Your task to perform on an android device: Do I have any events this weekend? Image 0: 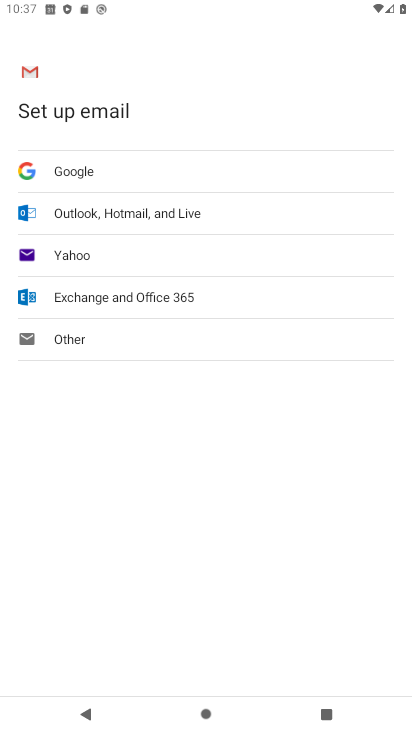
Step 0: press back button
Your task to perform on an android device: Do I have any events this weekend? Image 1: 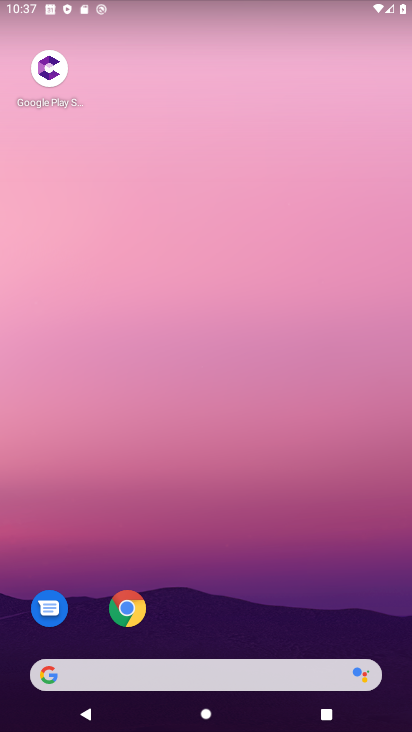
Step 1: drag from (158, 655) to (292, 75)
Your task to perform on an android device: Do I have any events this weekend? Image 2: 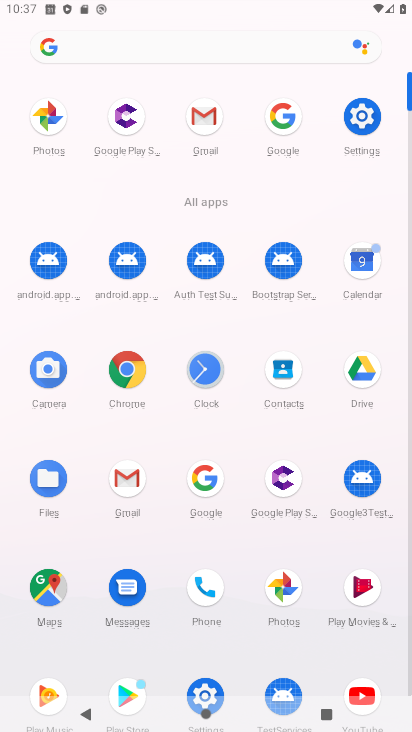
Step 2: click (380, 261)
Your task to perform on an android device: Do I have any events this weekend? Image 3: 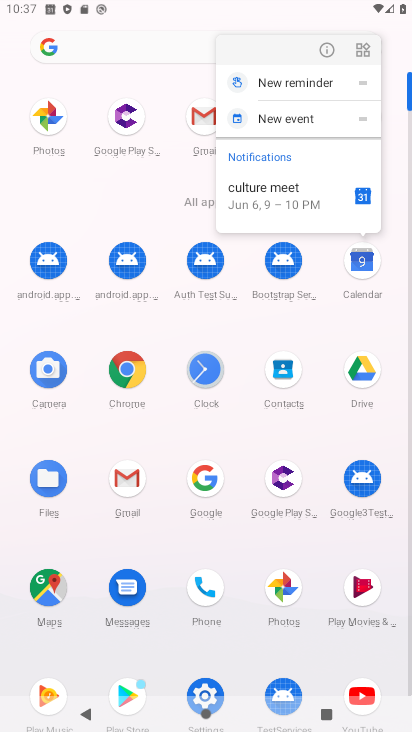
Step 3: click (368, 260)
Your task to perform on an android device: Do I have any events this weekend? Image 4: 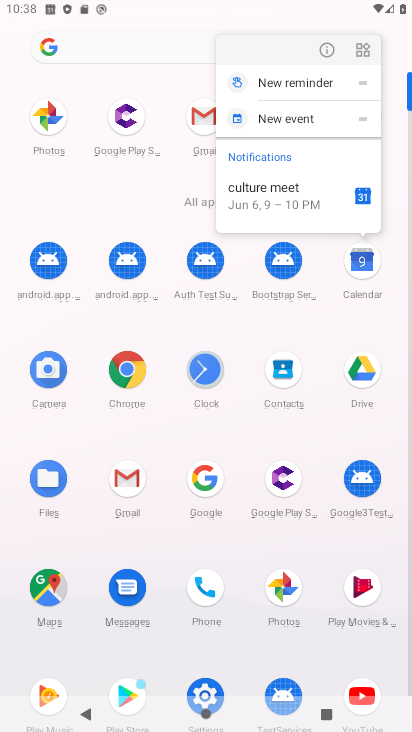
Step 4: click (361, 265)
Your task to perform on an android device: Do I have any events this weekend? Image 5: 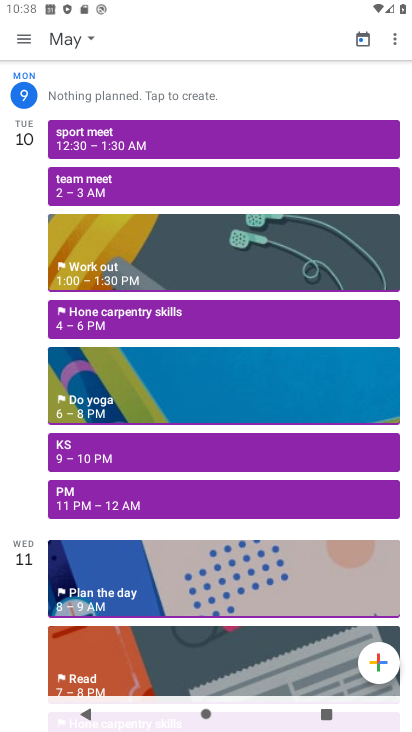
Step 5: click (25, 45)
Your task to perform on an android device: Do I have any events this weekend? Image 6: 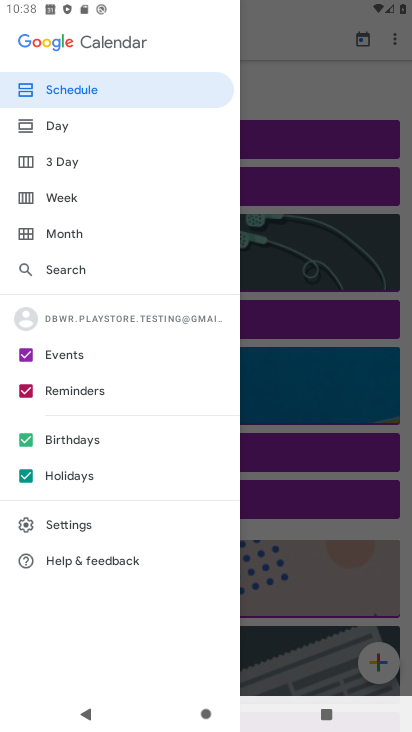
Step 6: click (99, 212)
Your task to perform on an android device: Do I have any events this weekend? Image 7: 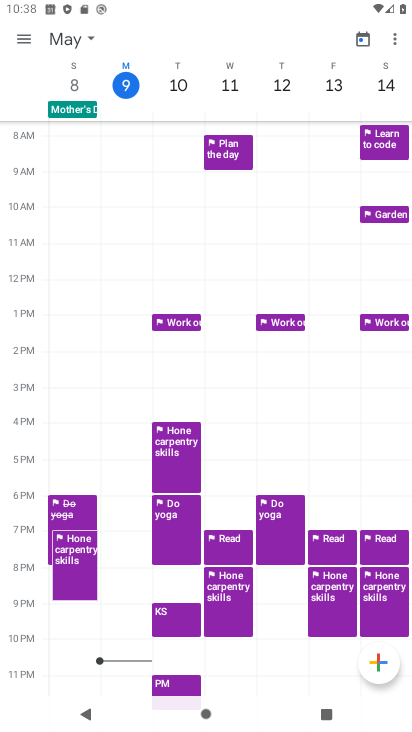
Step 7: task complete